Your task to perform on an android device: change timer sound Image 0: 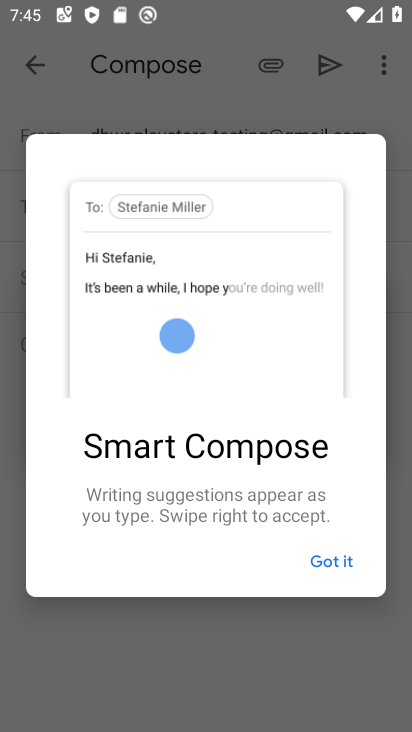
Step 0: press home button
Your task to perform on an android device: change timer sound Image 1: 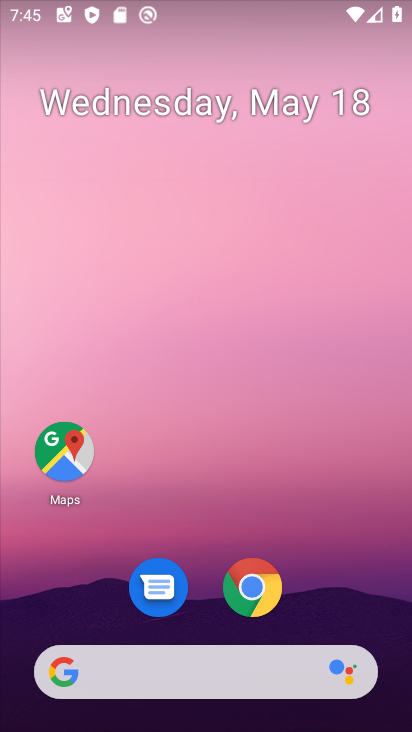
Step 1: drag from (206, 604) to (235, 9)
Your task to perform on an android device: change timer sound Image 2: 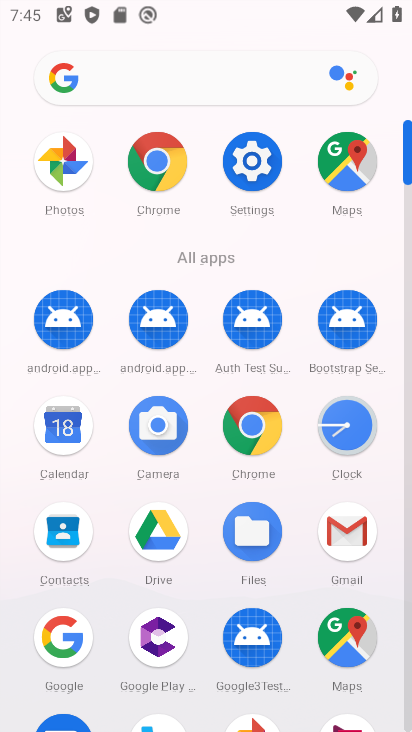
Step 2: click (242, 146)
Your task to perform on an android device: change timer sound Image 3: 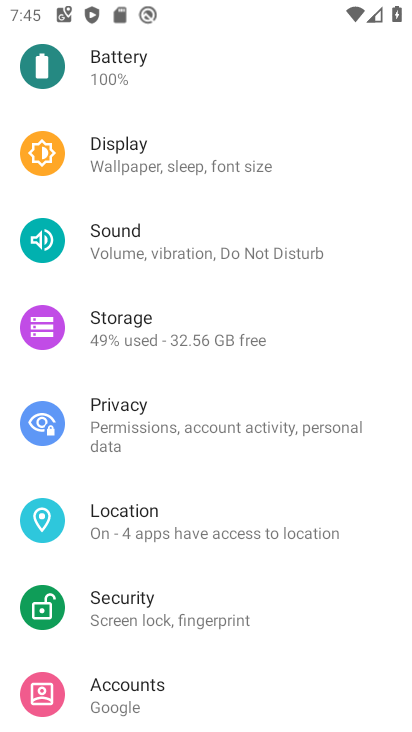
Step 3: click (133, 246)
Your task to perform on an android device: change timer sound Image 4: 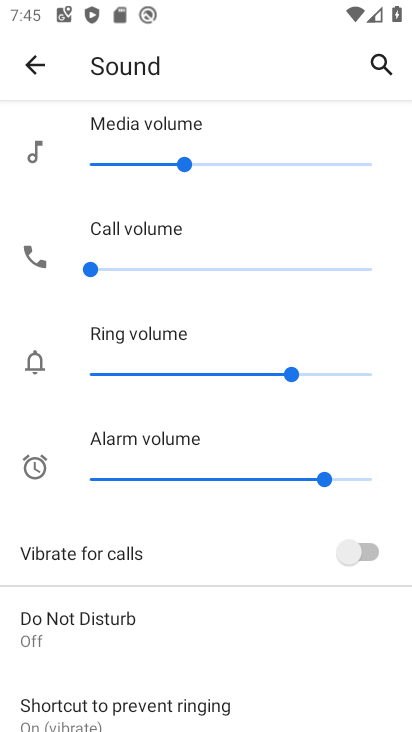
Step 4: task complete